Your task to perform on an android device: toggle notification dots Image 0: 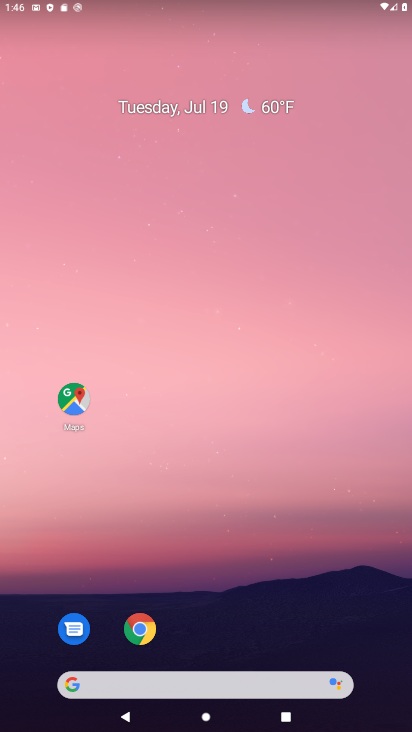
Step 0: drag from (369, 641) to (305, 62)
Your task to perform on an android device: toggle notification dots Image 1: 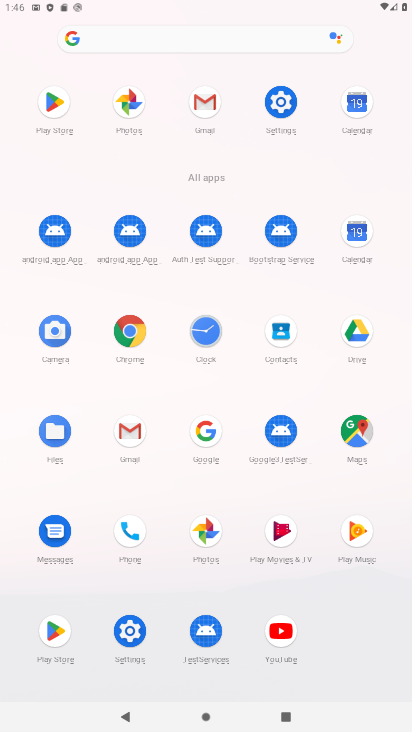
Step 1: click (131, 629)
Your task to perform on an android device: toggle notification dots Image 2: 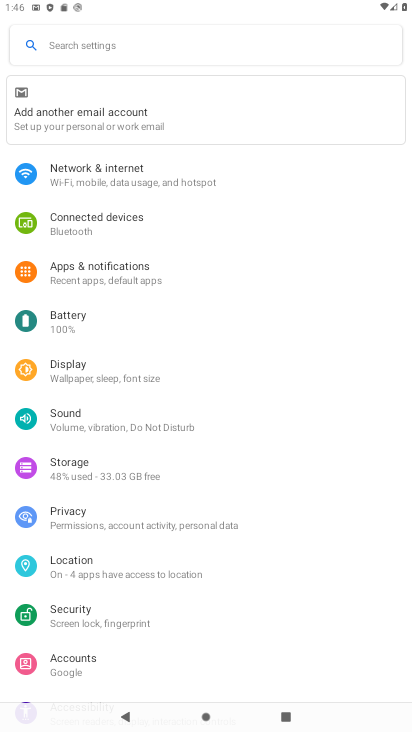
Step 2: click (111, 265)
Your task to perform on an android device: toggle notification dots Image 3: 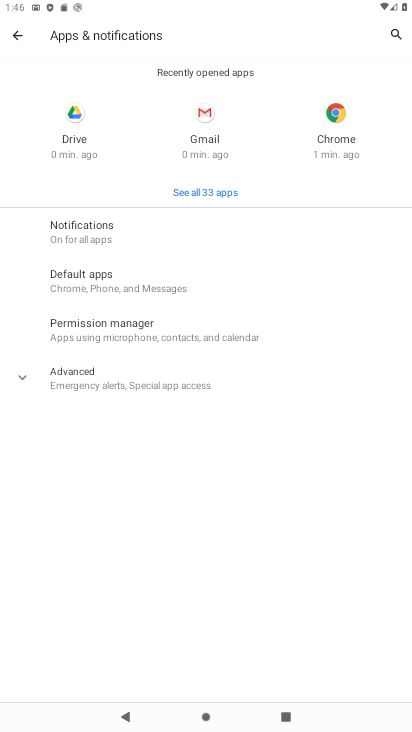
Step 3: click (76, 232)
Your task to perform on an android device: toggle notification dots Image 4: 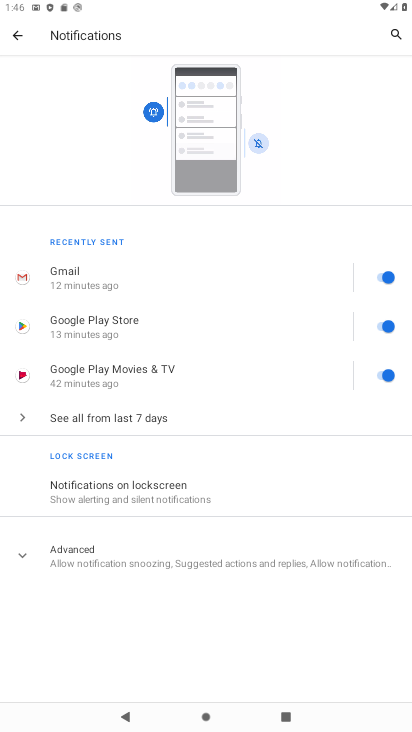
Step 4: click (22, 550)
Your task to perform on an android device: toggle notification dots Image 5: 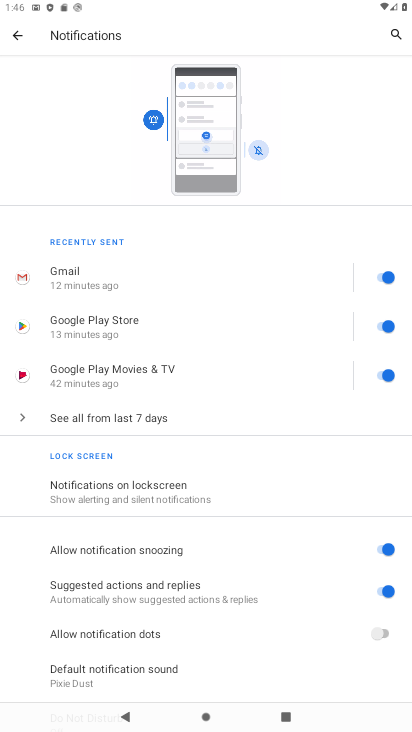
Step 5: click (387, 632)
Your task to perform on an android device: toggle notification dots Image 6: 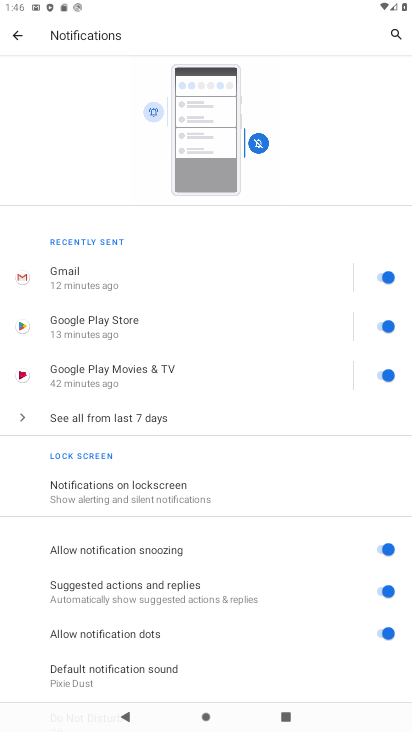
Step 6: task complete